Your task to perform on an android device: What's the latest news in space technology? Image 0: 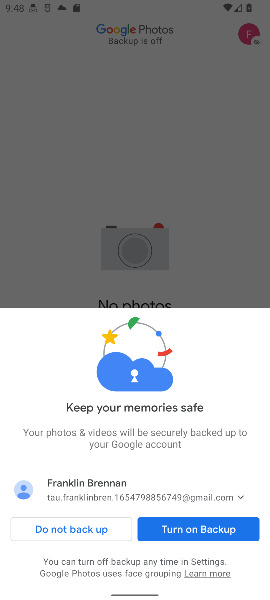
Step 0: press home button
Your task to perform on an android device: What's the latest news in space technology? Image 1: 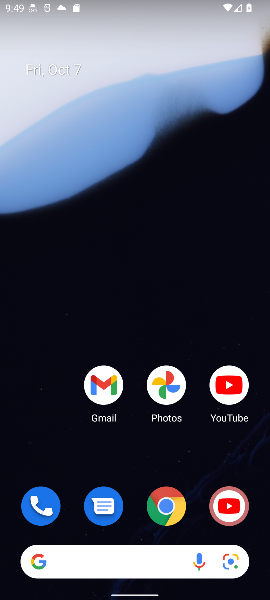
Step 1: click (161, 511)
Your task to perform on an android device: What's the latest news in space technology? Image 2: 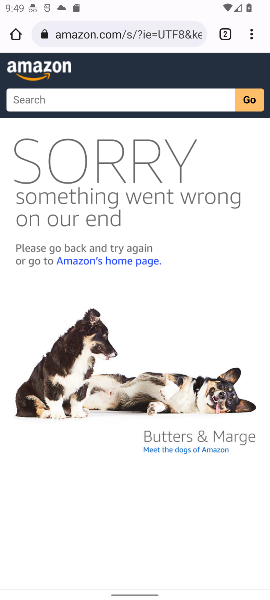
Step 2: click (152, 27)
Your task to perform on an android device: What's the latest news in space technology? Image 3: 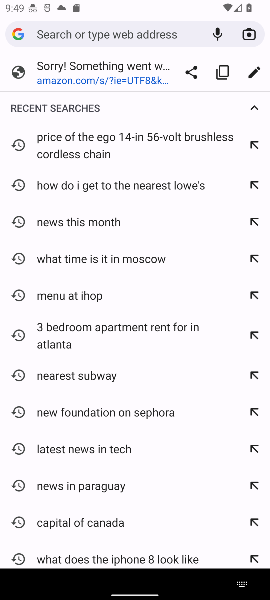
Step 3: type "latest news in space technology"
Your task to perform on an android device: What's the latest news in space technology? Image 4: 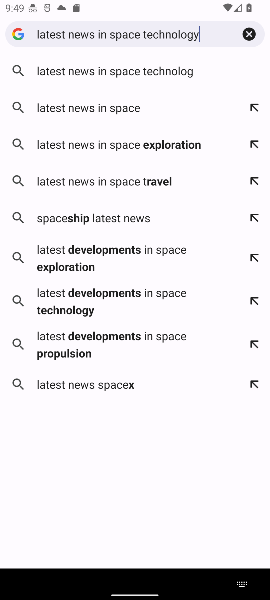
Step 4: press enter
Your task to perform on an android device: What's the latest news in space technology? Image 5: 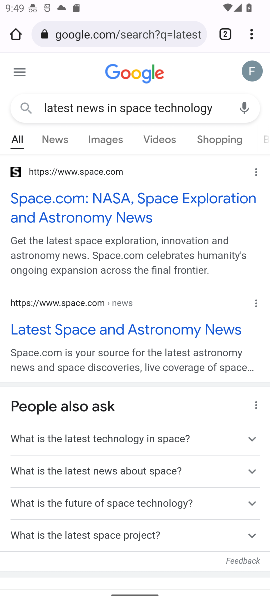
Step 5: click (56, 136)
Your task to perform on an android device: What's the latest news in space technology? Image 6: 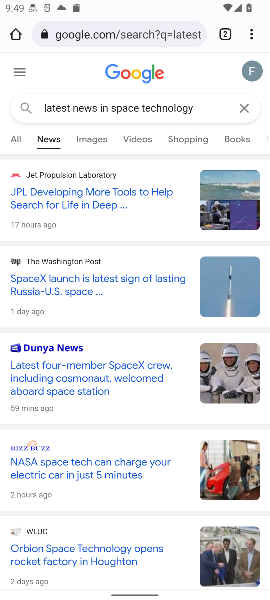
Step 6: task complete